Your task to perform on an android device: find photos in the google photos app Image 0: 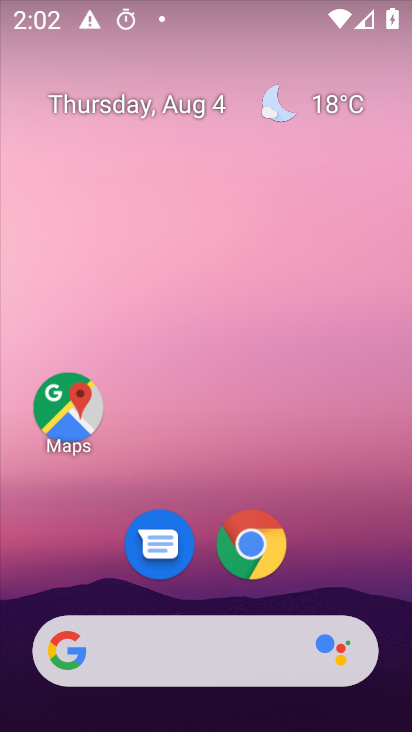
Step 0: drag from (384, 643) to (347, 135)
Your task to perform on an android device: find photos in the google photos app Image 1: 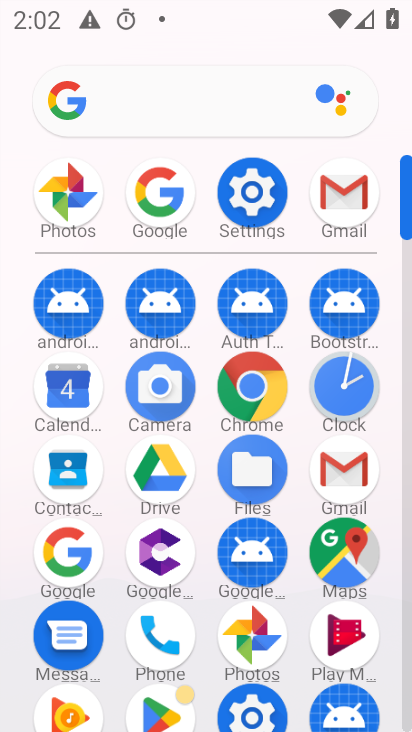
Step 1: click (294, 620)
Your task to perform on an android device: find photos in the google photos app Image 2: 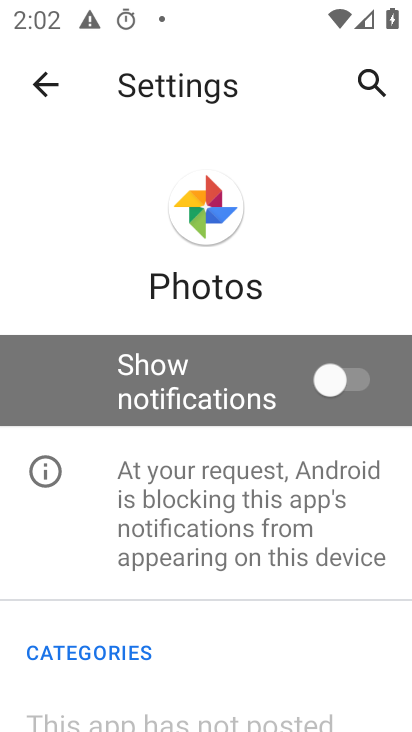
Step 2: click (36, 76)
Your task to perform on an android device: find photos in the google photos app Image 3: 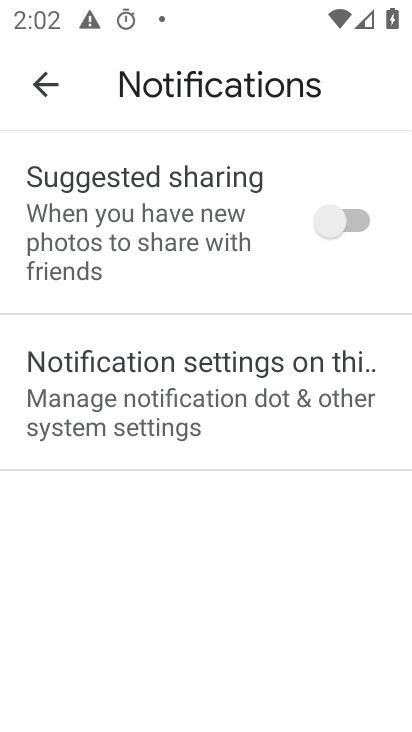
Step 3: click (36, 77)
Your task to perform on an android device: find photos in the google photos app Image 4: 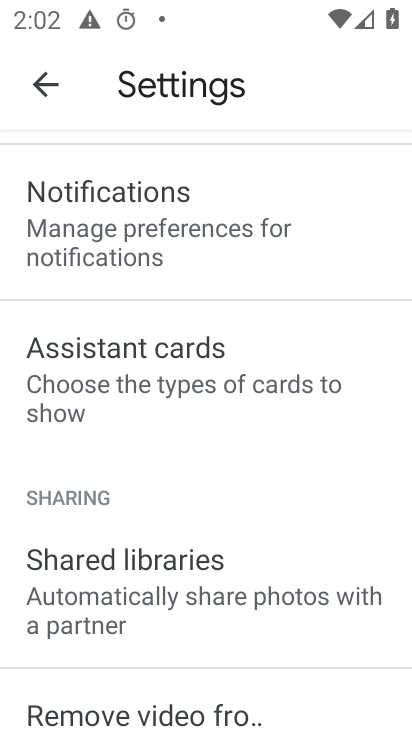
Step 4: click (45, 93)
Your task to perform on an android device: find photos in the google photos app Image 5: 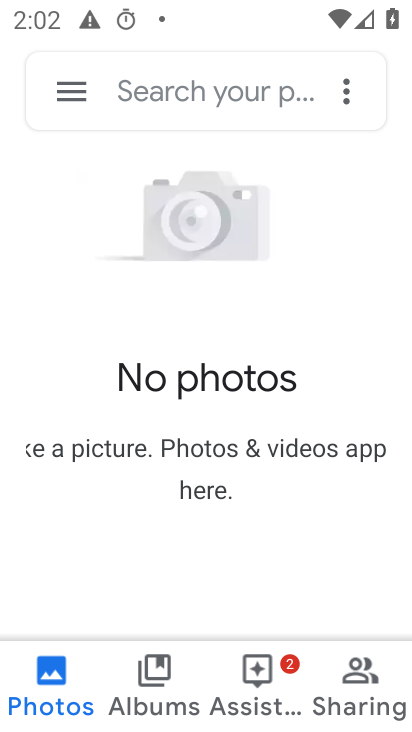
Step 5: click (54, 678)
Your task to perform on an android device: find photos in the google photos app Image 6: 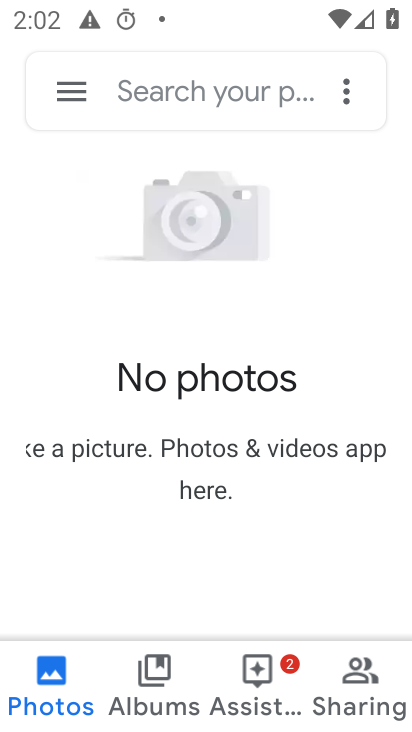
Step 6: click (56, 685)
Your task to perform on an android device: find photos in the google photos app Image 7: 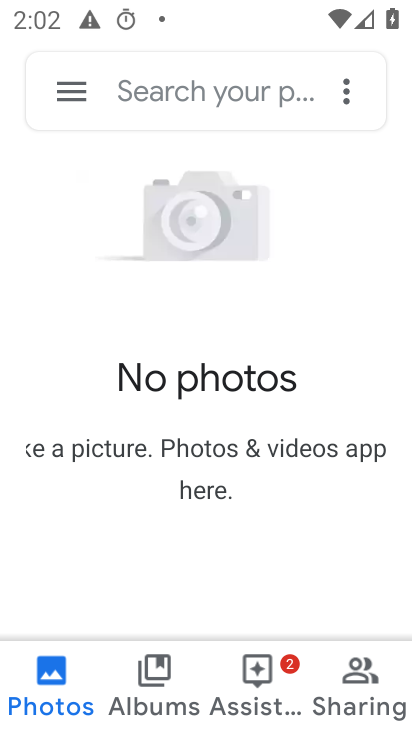
Step 7: task complete